Your task to perform on an android device: Show me popular videos on Youtube Image 0: 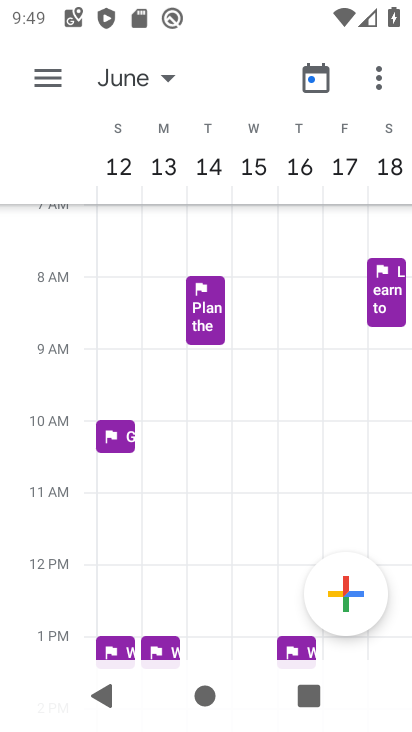
Step 0: press home button
Your task to perform on an android device: Show me popular videos on Youtube Image 1: 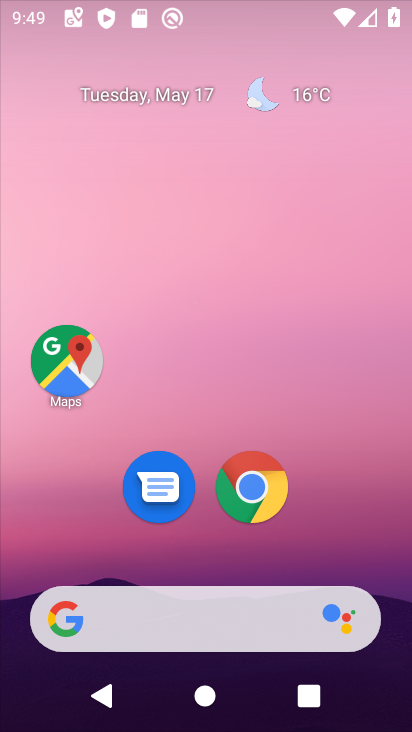
Step 1: drag from (219, 535) to (211, 4)
Your task to perform on an android device: Show me popular videos on Youtube Image 2: 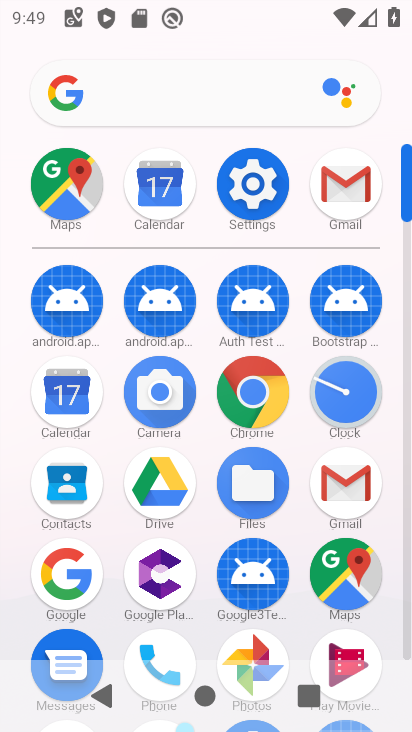
Step 2: drag from (221, 597) to (230, 96)
Your task to perform on an android device: Show me popular videos on Youtube Image 3: 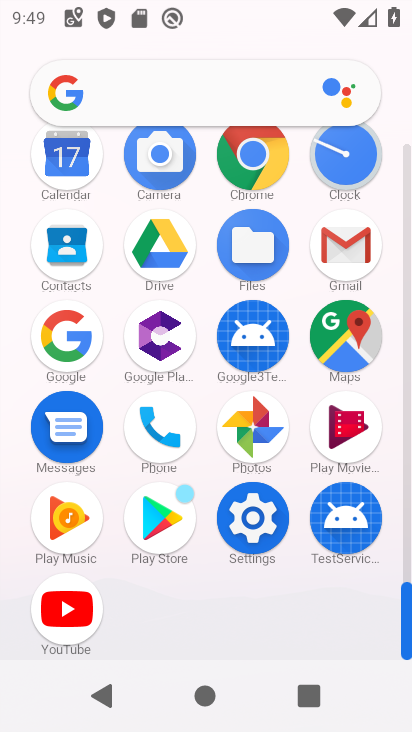
Step 3: click (60, 614)
Your task to perform on an android device: Show me popular videos on Youtube Image 4: 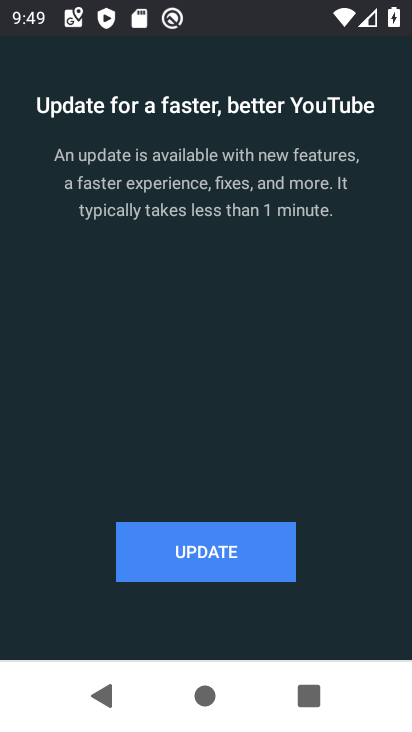
Step 4: click (202, 552)
Your task to perform on an android device: Show me popular videos on Youtube Image 5: 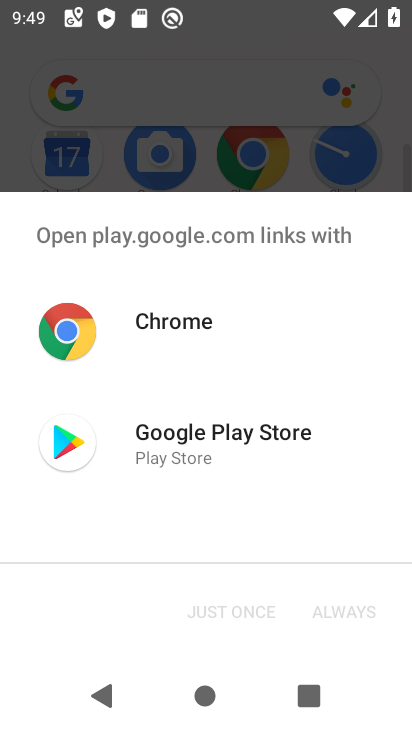
Step 5: click (155, 422)
Your task to perform on an android device: Show me popular videos on Youtube Image 6: 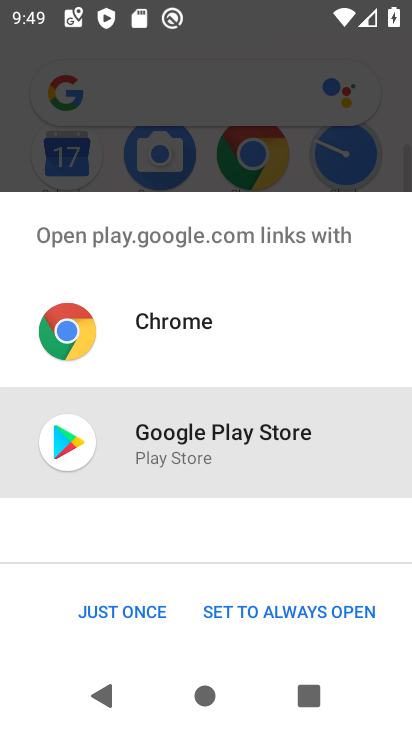
Step 6: click (142, 617)
Your task to perform on an android device: Show me popular videos on Youtube Image 7: 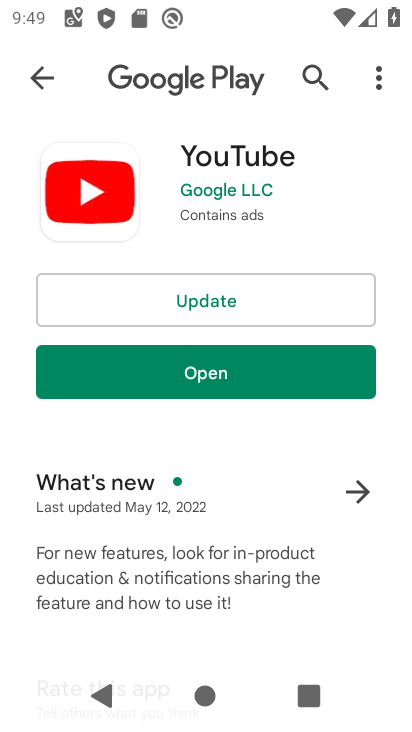
Step 7: click (226, 293)
Your task to perform on an android device: Show me popular videos on Youtube Image 8: 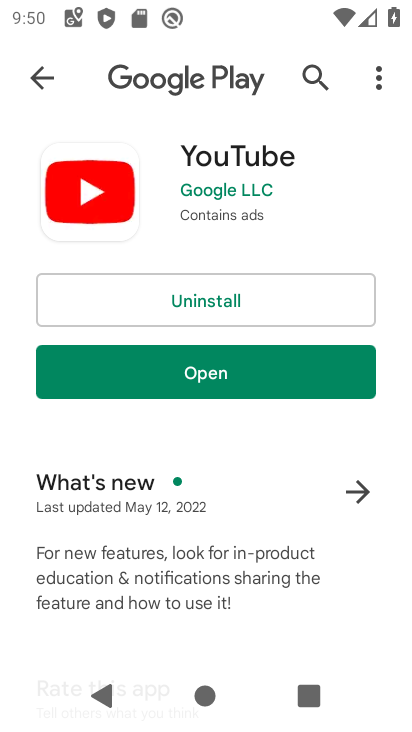
Step 8: click (322, 379)
Your task to perform on an android device: Show me popular videos on Youtube Image 9: 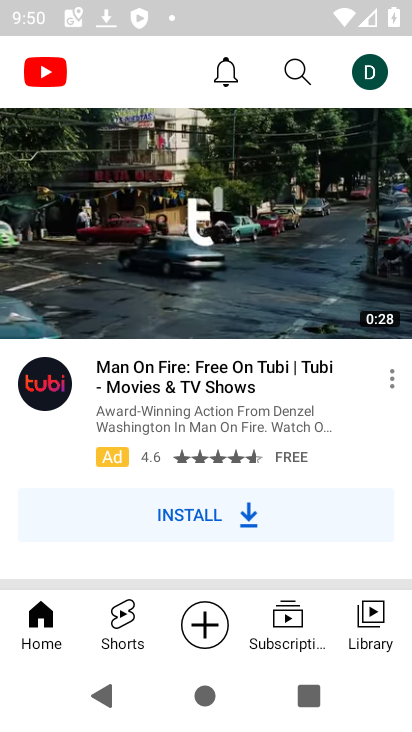
Step 9: drag from (128, 167) to (119, 563)
Your task to perform on an android device: Show me popular videos on Youtube Image 10: 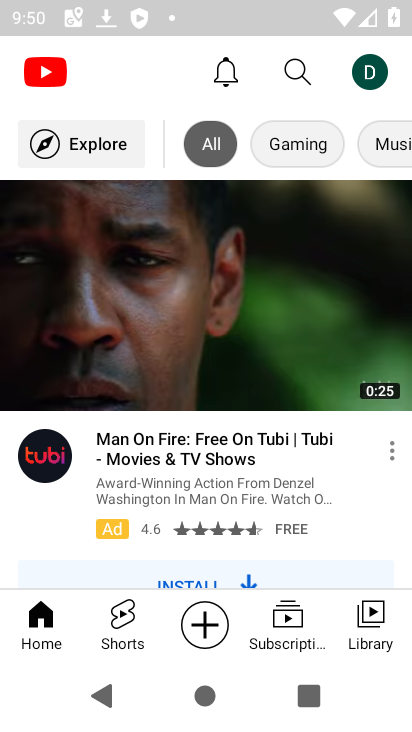
Step 10: click (81, 151)
Your task to perform on an android device: Show me popular videos on Youtube Image 11: 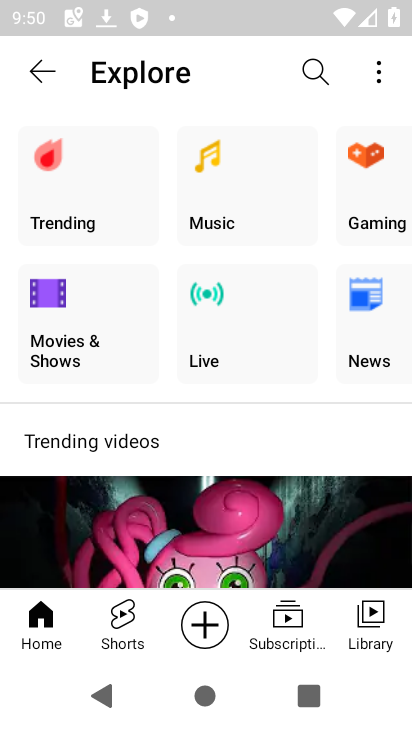
Step 11: click (79, 175)
Your task to perform on an android device: Show me popular videos on Youtube Image 12: 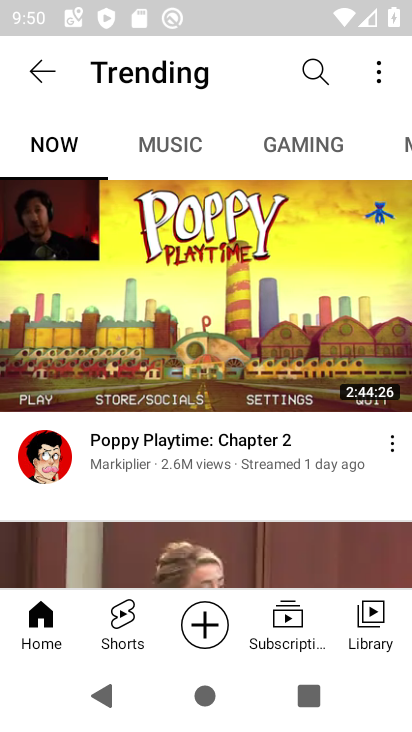
Step 12: task complete